Your task to perform on an android device: uninstall "Indeed Job Search" Image 0: 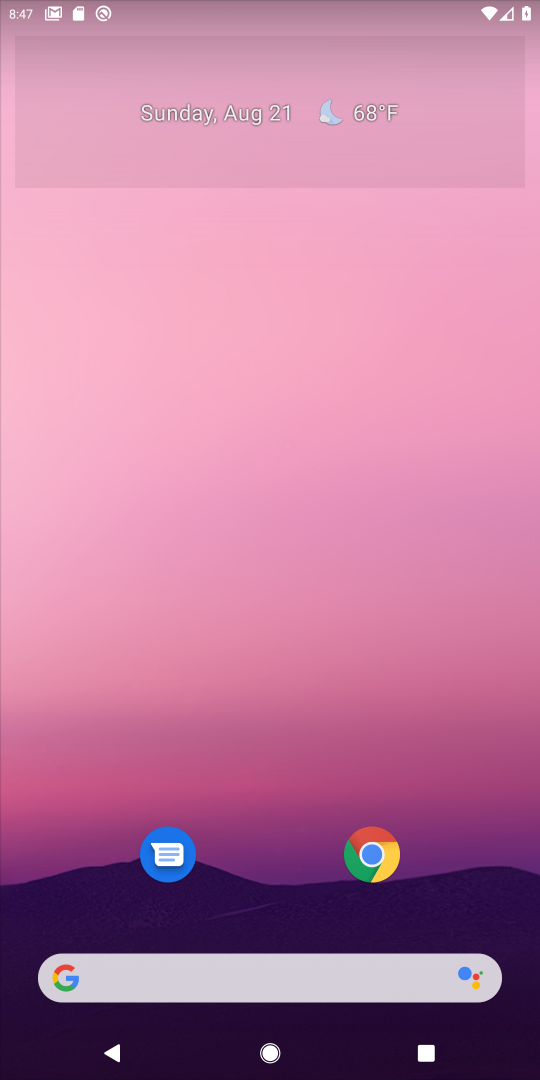
Step 0: drag from (287, 933) to (279, 737)
Your task to perform on an android device: uninstall "Indeed Job Search" Image 1: 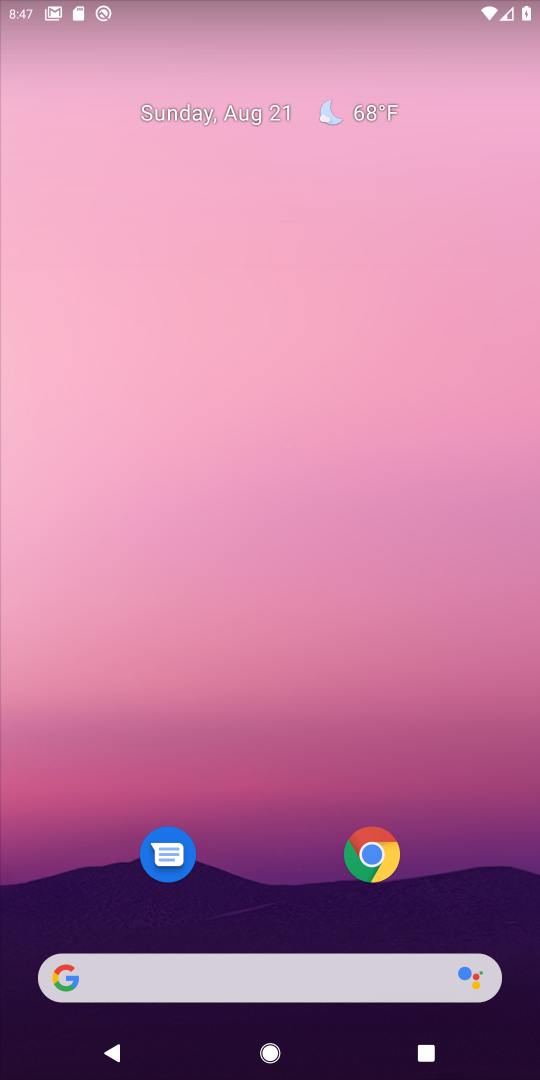
Step 1: drag from (278, 941) to (256, 1)
Your task to perform on an android device: uninstall "Indeed Job Search" Image 2: 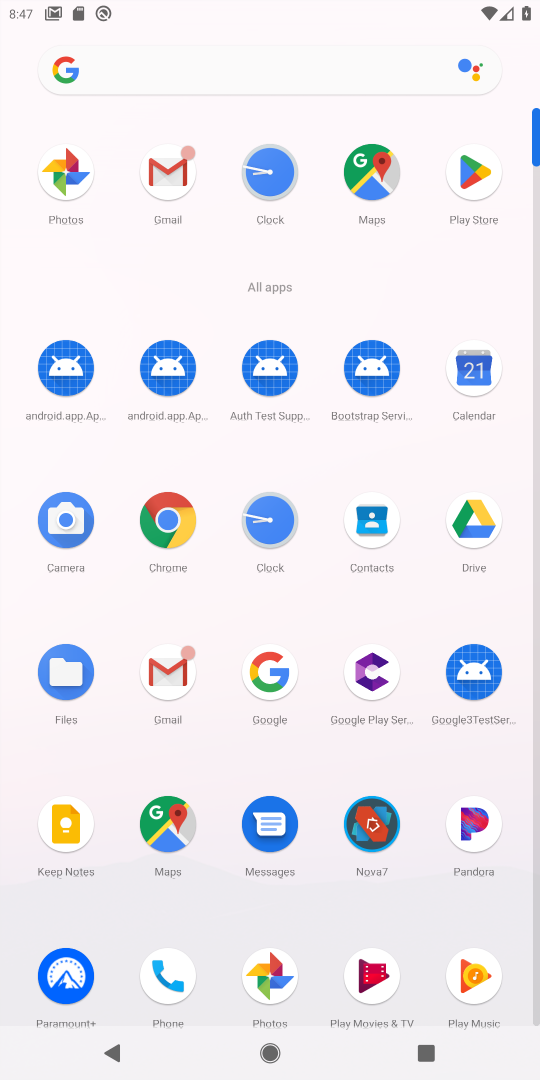
Step 2: click (488, 186)
Your task to perform on an android device: uninstall "Indeed Job Search" Image 3: 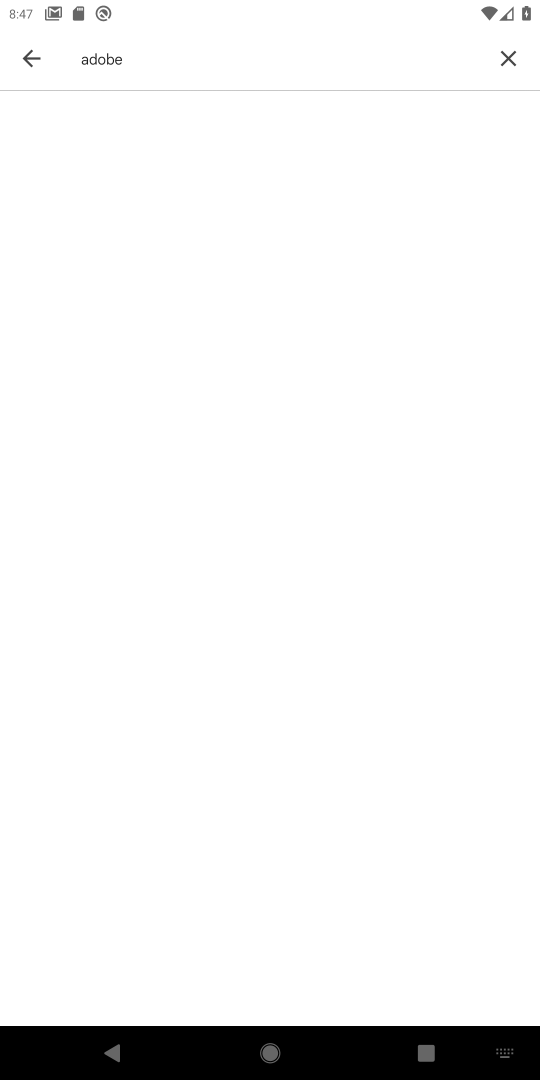
Step 3: click (495, 64)
Your task to perform on an android device: uninstall "Indeed Job Search" Image 4: 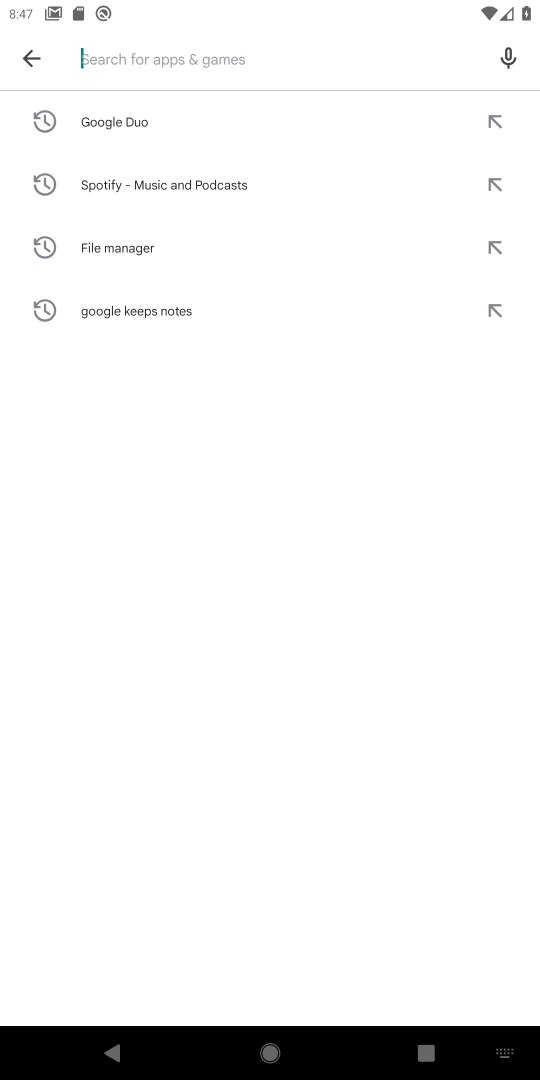
Step 4: type "indeed"
Your task to perform on an android device: uninstall "Indeed Job Search" Image 5: 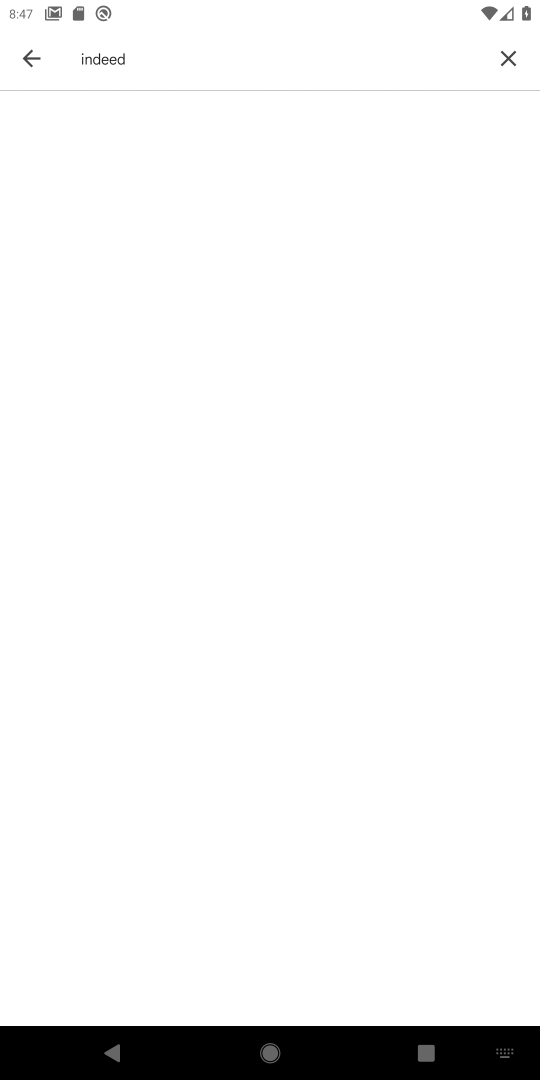
Step 5: task complete